Your task to perform on an android device: Open Wikipedia Image 0: 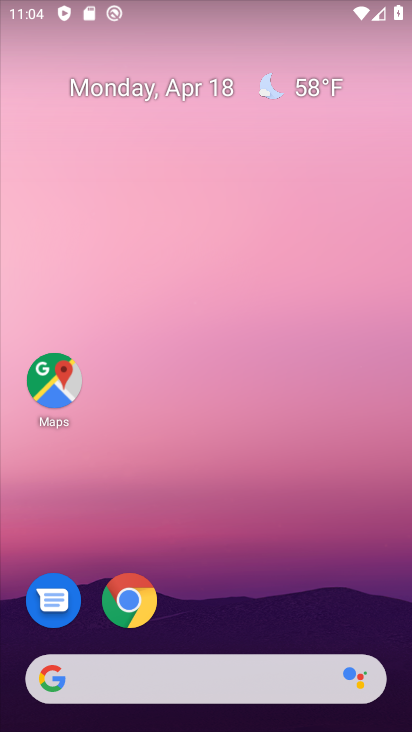
Step 0: drag from (293, 84) to (290, 44)
Your task to perform on an android device: Open Wikipedia Image 1: 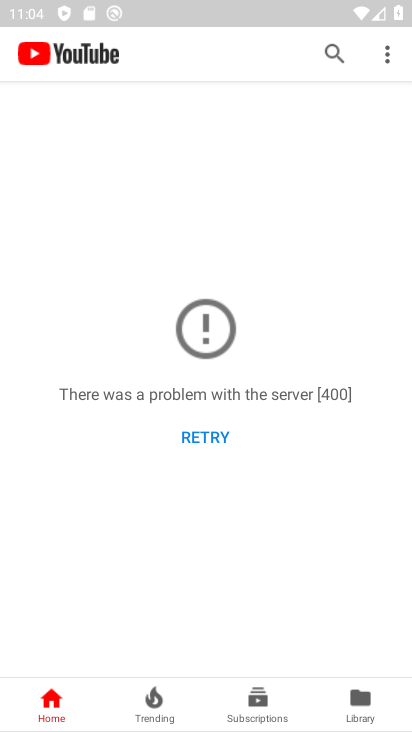
Step 1: press back button
Your task to perform on an android device: Open Wikipedia Image 2: 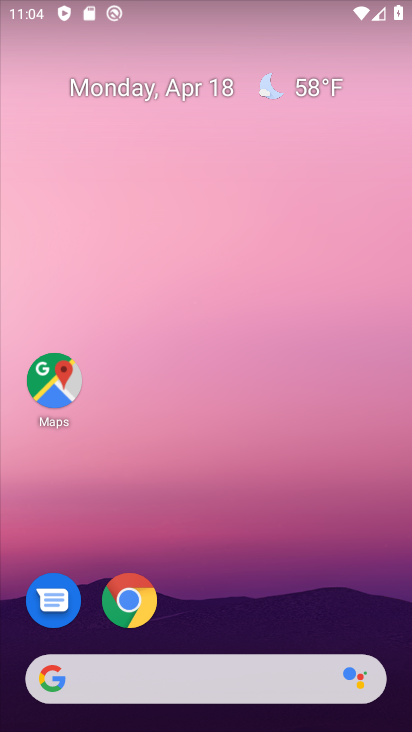
Step 2: click (116, 601)
Your task to perform on an android device: Open Wikipedia Image 3: 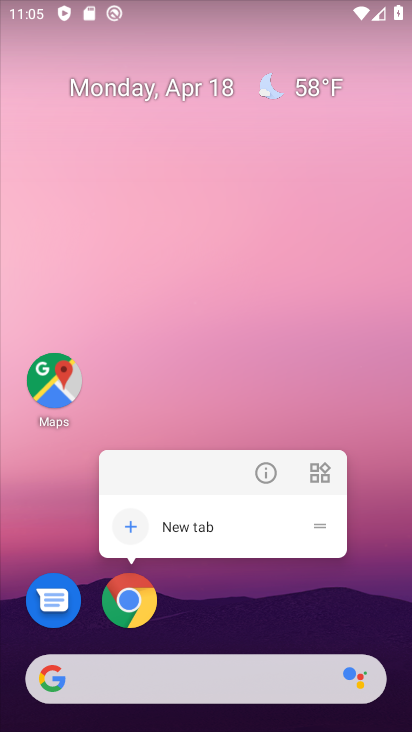
Step 3: click (134, 592)
Your task to perform on an android device: Open Wikipedia Image 4: 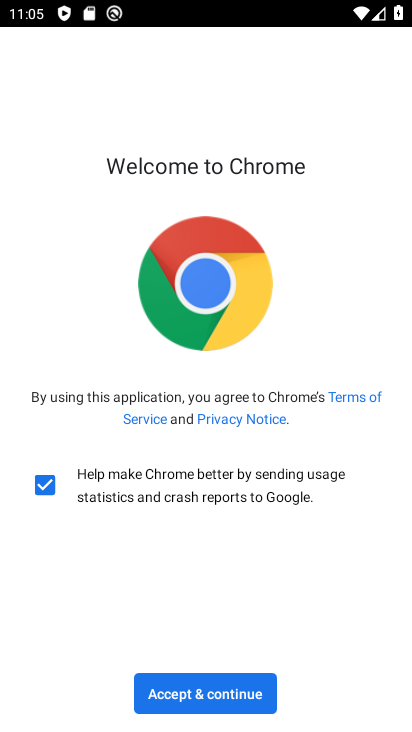
Step 4: click (183, 688)
Your task to perform on an android device: Open Wikipedia Image 5: 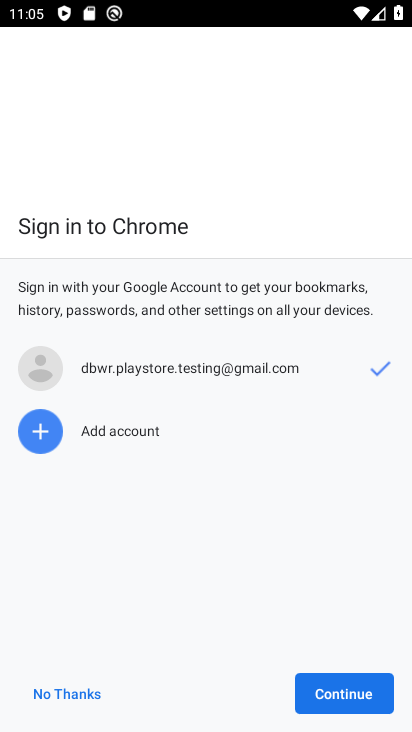
Step 5: click (331, 706)
Your task to perform on an android device: Open Wikipedia Image 6: 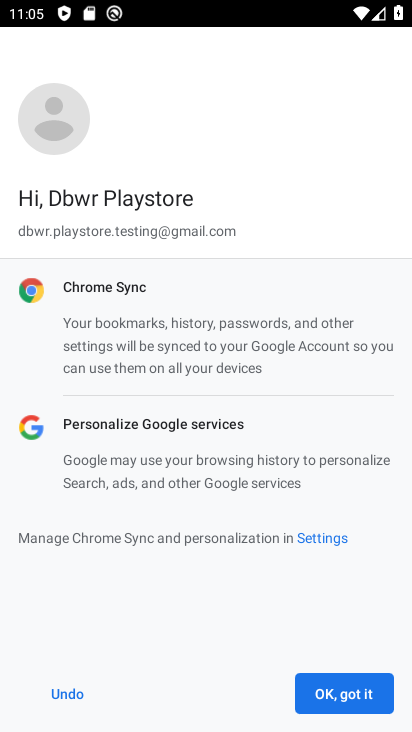
Step 6: click (333, 701)
Your task to perform on an android device: Open Wikipedia Image 7: 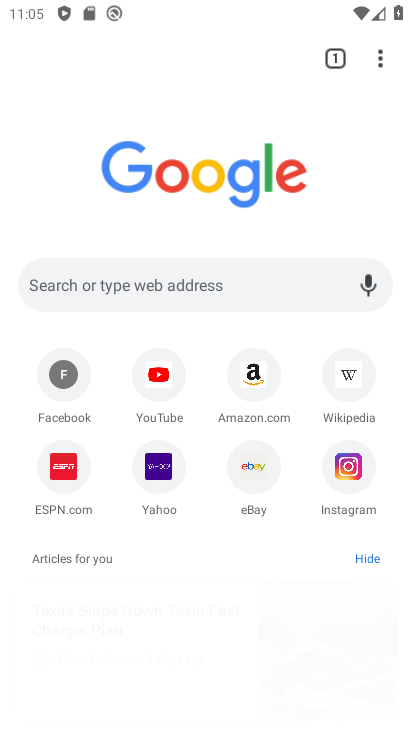
Step 7: click (347, 383)
Your task to perform on an android device: Open Wikipedia Image 8: 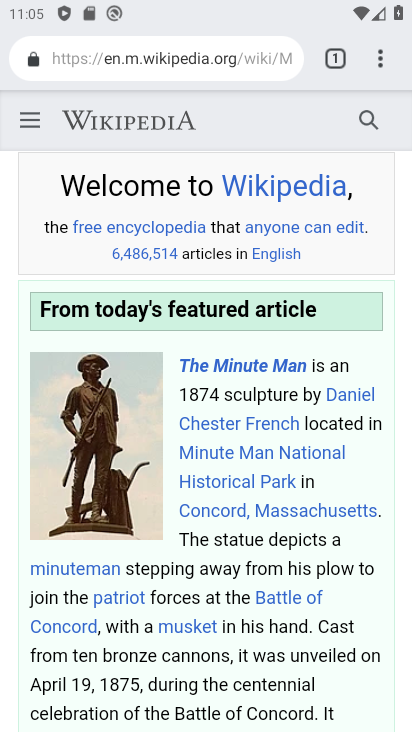
Step 8: task complete